Your task to perform on an android device: open the mobile data screen to see how much data has been used Image 0: 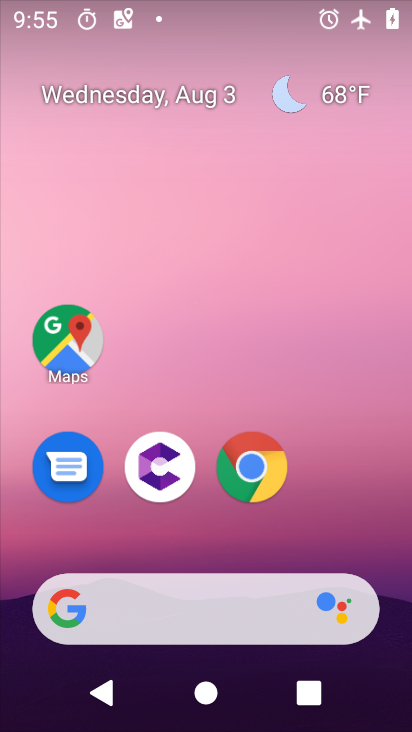
Step 0: drag from (367, 506) to (331, 145)
Your task to perform on an android device: open the mobile data screen to see how much data has been used Image 1: 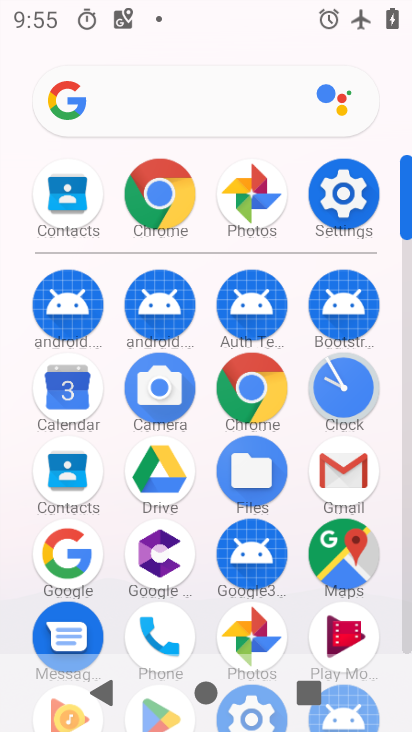
Step 1: click (338, 193)
Your task to perform on an android device: open the mobile data screen to see how much data has been used Image 2: 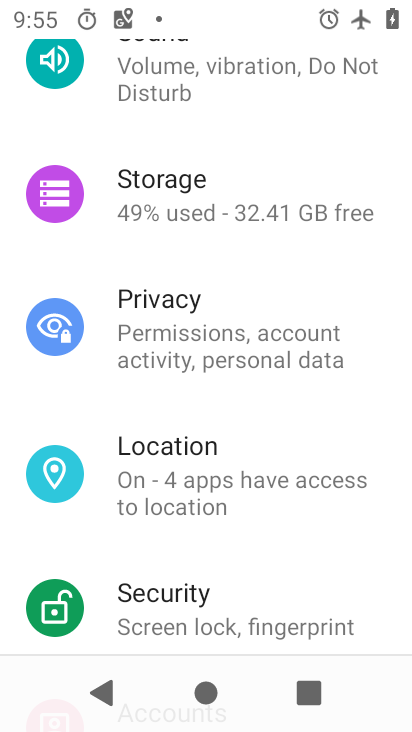
Step 2: click (256, 571)
Your task to perform on an android device: open the mobile data screen to see how much data has been used Image 3: 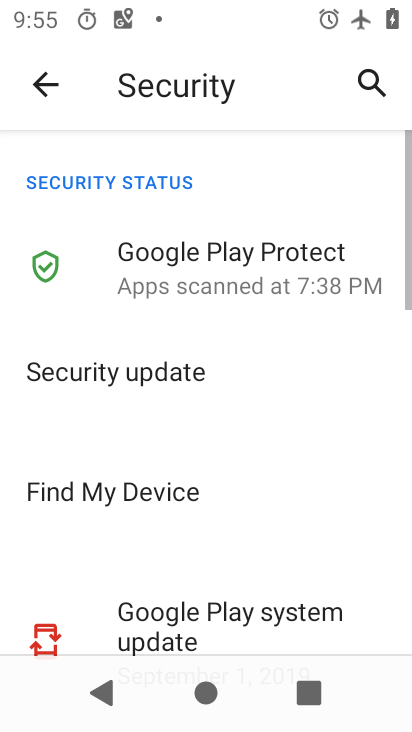
Step 3: click (52, 74)
Your task to perform on an android device: open the mobile data screen to see how much data has been used Image 4: 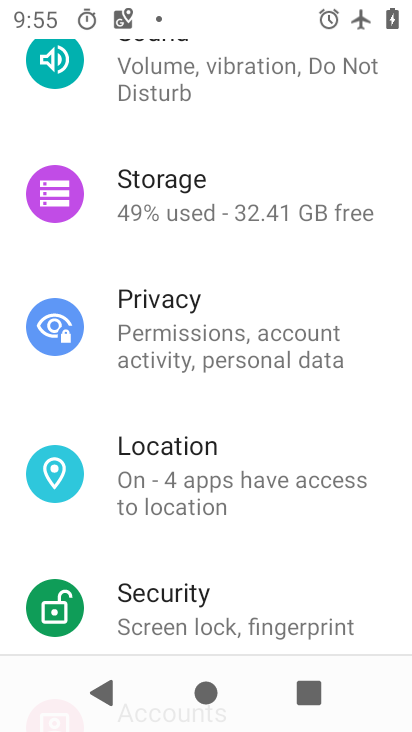
Step 4: drag from (304, 139) to (349, 579)
Your task to perform on an android device: open the mobile data screen to see how much data has been used Image 5: 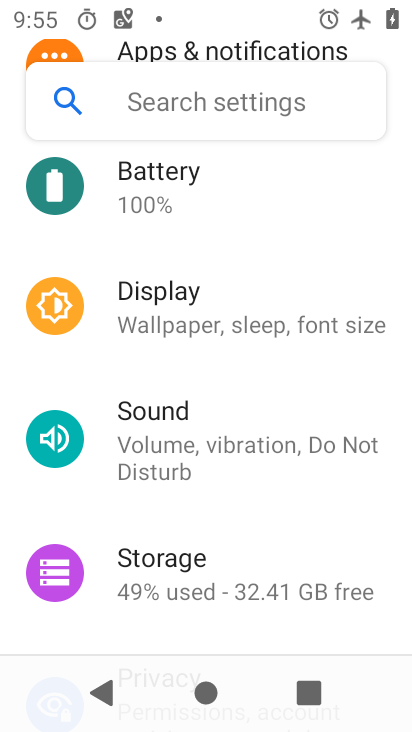
Step 5: drag from (337, 187) to (311, 569)
Your task to perform on an android device: open the mobile data screen to see how much data has been used Image 6: 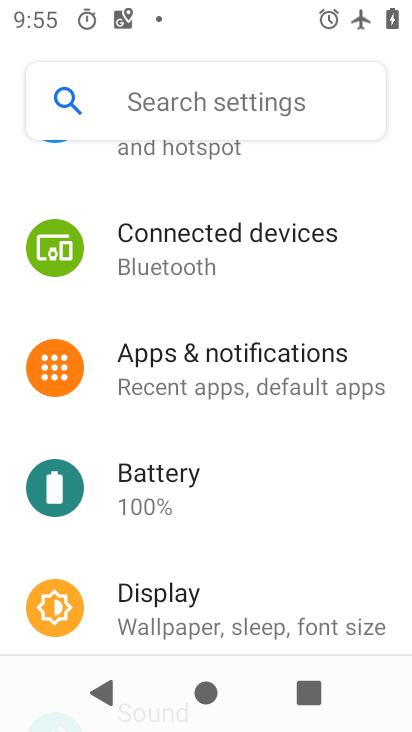
Step 6: drag from (344, 173) to (305, 519)
Your task to perform on an android device: open the mobile data screen to see how much data has been used Image 7: 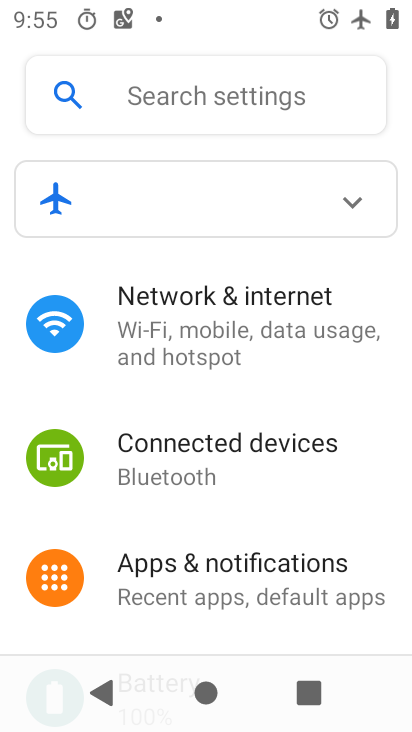
Step 7: click (208, 338)
Your task to perform on an android device: open the mobile data screen to see how much data has been used Image 8: 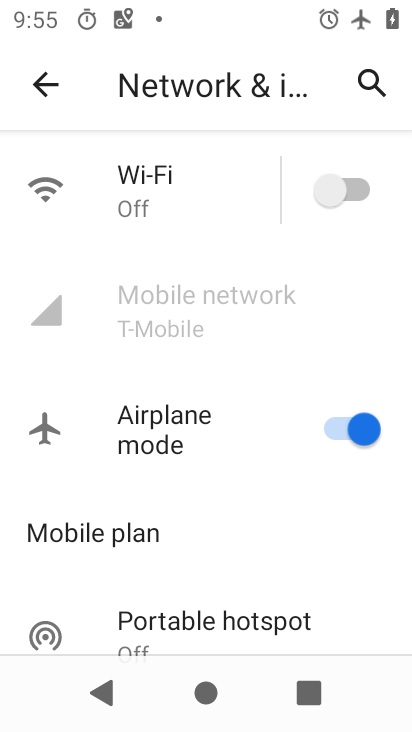
Step 8: click (203, 292)
Your task to perform on an android device: open the mobile data screen to see how much data has been used Image 9: 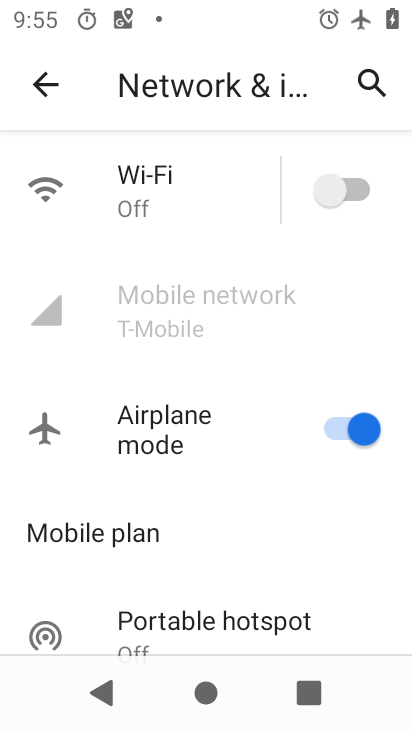
Step 9: click (203, 292)
Your task to perform on an android device: open the mobile data screen to see how much data has been used Image 10: 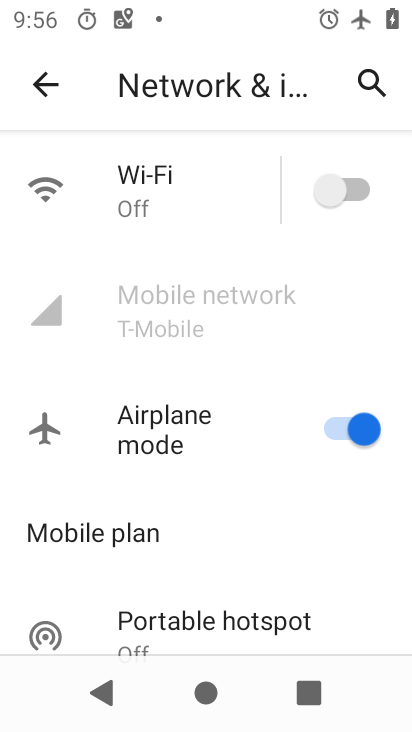
Step 10: task complete